Your task to perform on an android device: Go to battery settings Image 0: 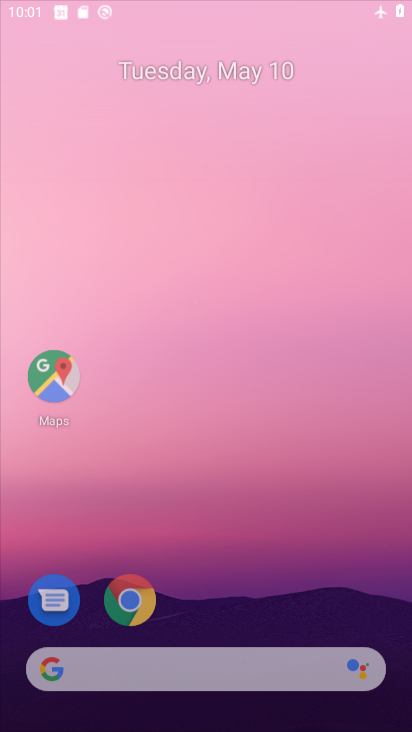
Step 0: click (277, 101)
Your task to perform on an android device: Go to battery settings Image 1: 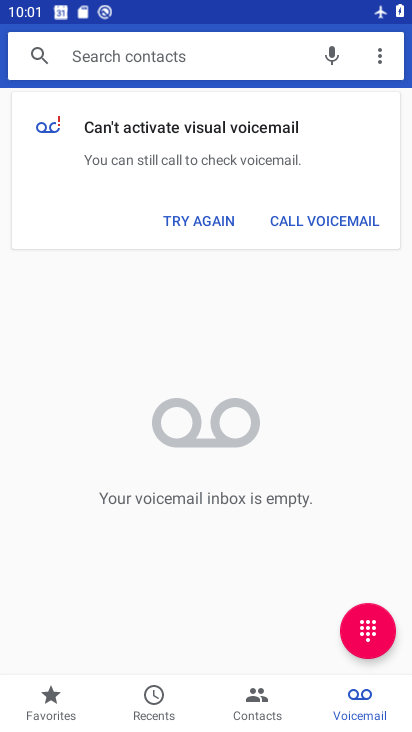
Step 1: drag from (203, 493) to (225, 237)
Your task to perform on an android device: Go to battery settings Image 2: 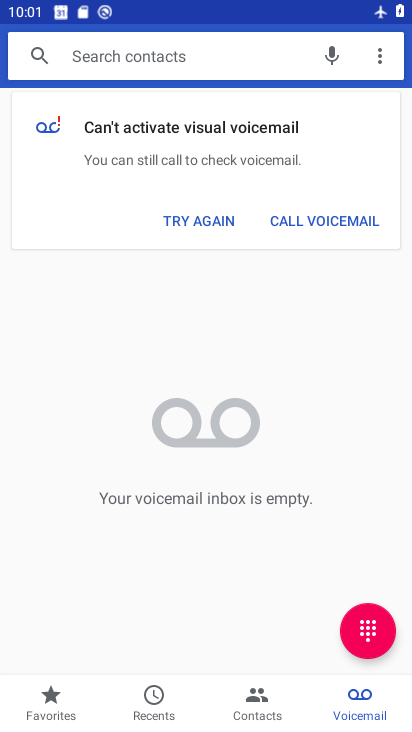
Step 2: press home button
Your task to perform on an android device: Go to battery settings Image 3: 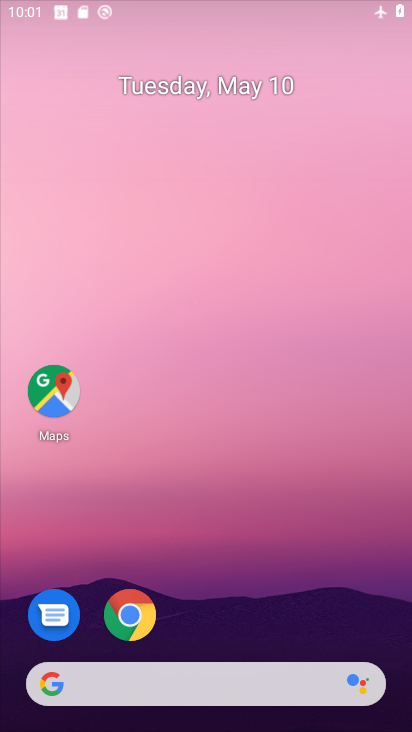
Step 3: drag from (164, 619) to (220, 129)
Your task to perform on an android device: Go to battery settings Image 4: 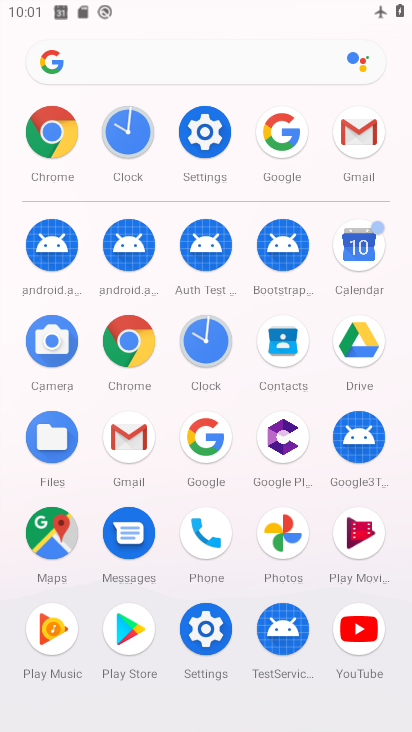
Step 4: click (206, 140)
Your task to perform on an android device: Go to battery settings Image 5: 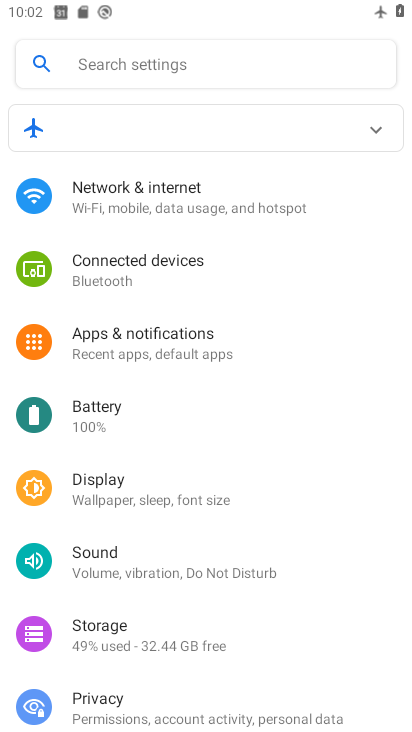
Step 5: drag from (173, 509) to (214, 209)
Your task to perform on an android device: Go to battery settings Image 6: 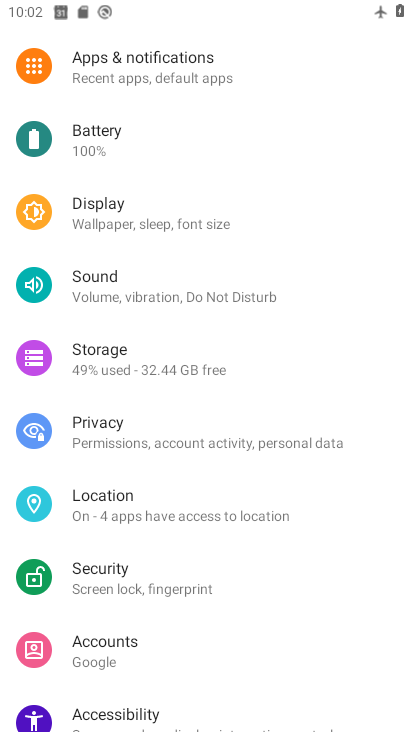
Step 6: click (117, 150)
Your task to perform on an android device: Go to battery settings Image 7: 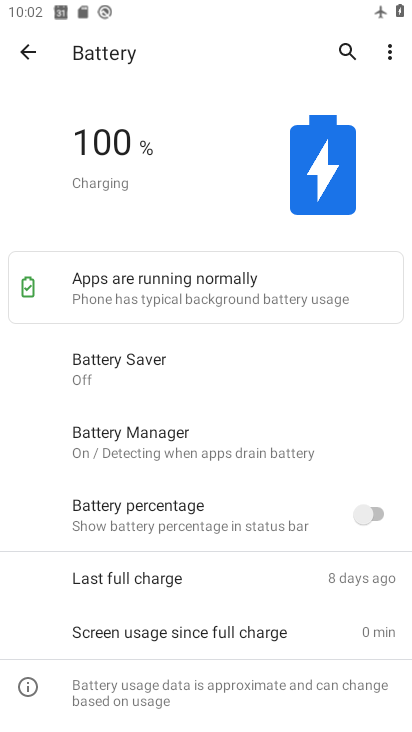
Step 7: task complete